Your task to perform on an android device: change the clock style Image 0: 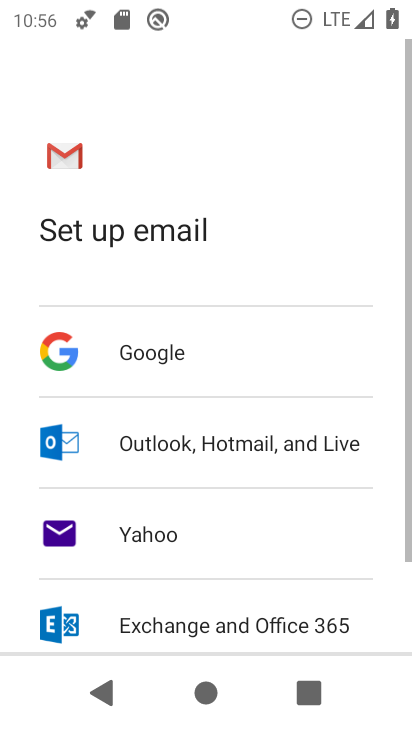
Step 0: press back button
Your task to perform on an android device: change the clock style Image 1: 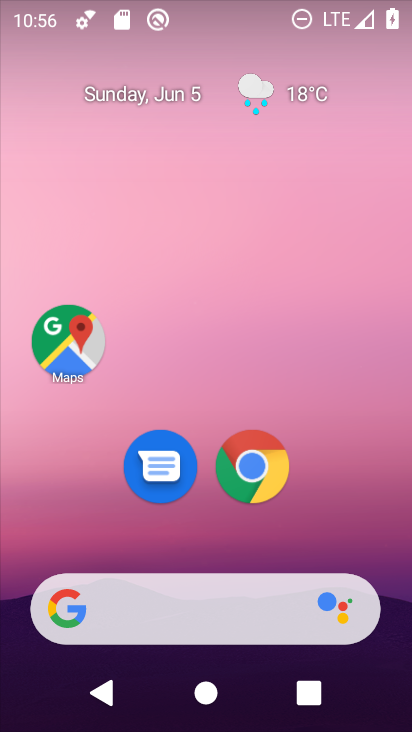
Step 1: drag from (359, 535) to (292, 67)
Your task to perform on an android device: change the clock style Image 2: 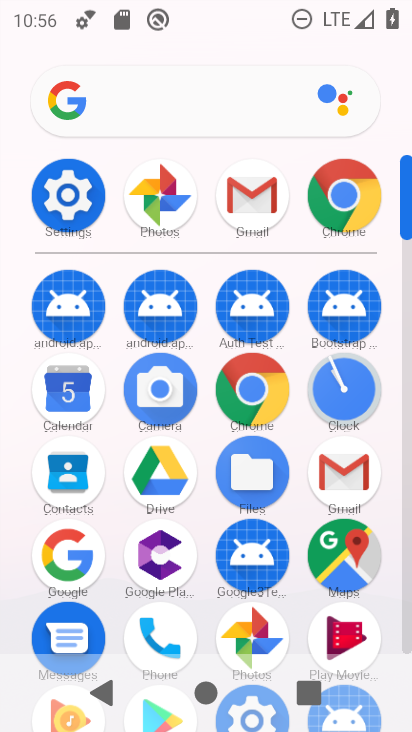
Step 2: drag from (2, 578) to (18, 304)
Your task to perform on an android device: change the clock style Image 3: 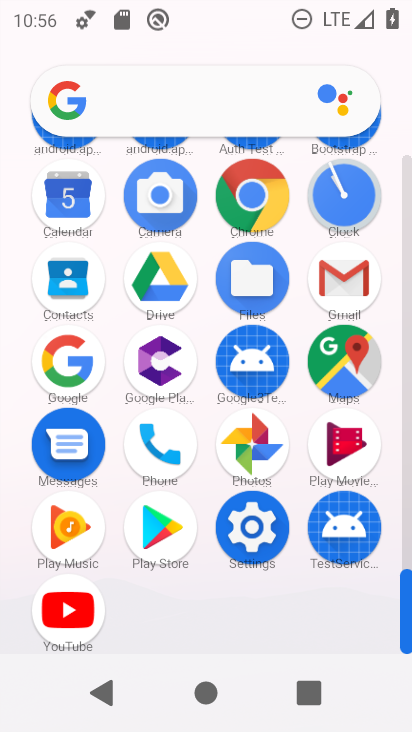
Step 3: click (341, 194)
Your task to perform on an android device: change the clock style Image 4: 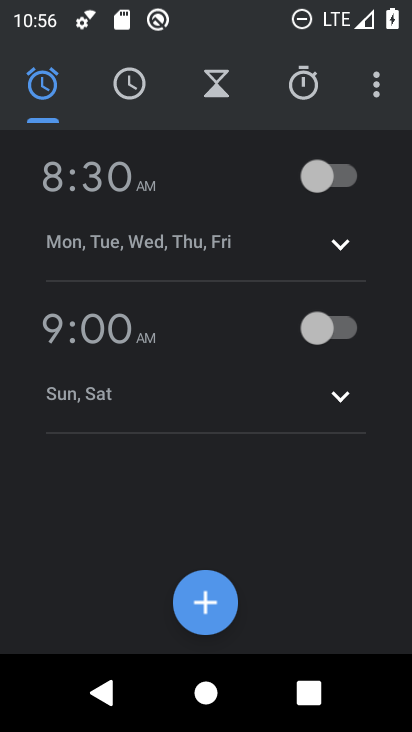
Step 4: click (376, 84)
Your task to perform on an android device: change the clock style Image 5: 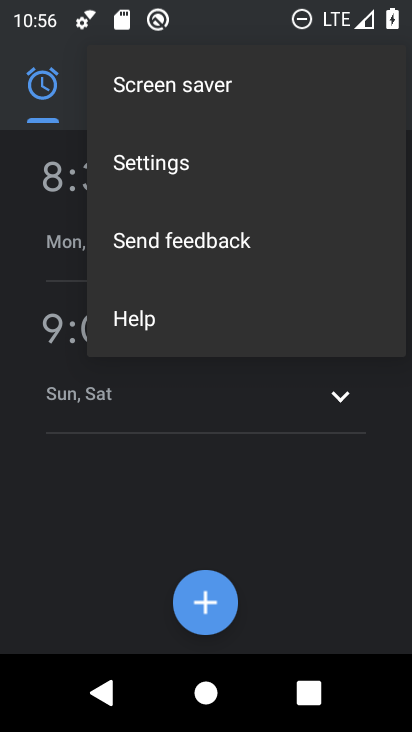
Step 5: click (186, 154)
Your task to perform on an android device: change the clock style Image 6: 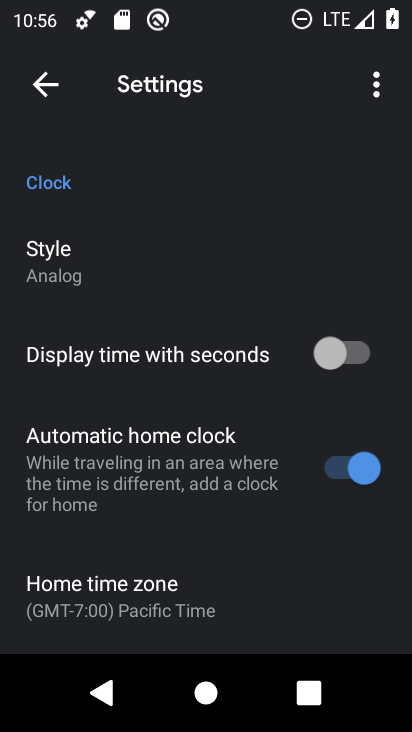
Step 6: click (107, 254)
Your task to perform on an android device: change the clock style Image 7: 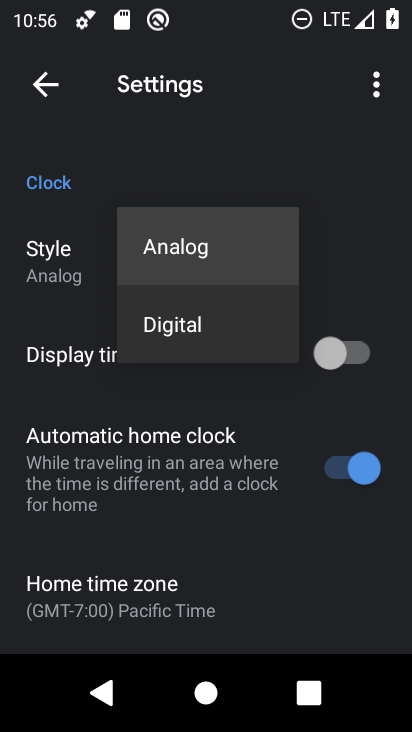
Step 7: click (191, 327)
Your task to perform on an android device: change the clock style Image 8: 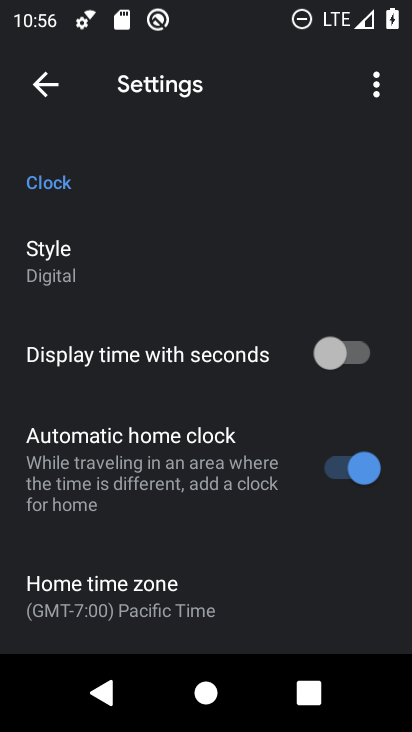
Step 8: task complete